Your task to perform on an android device: set the timer Image 0: 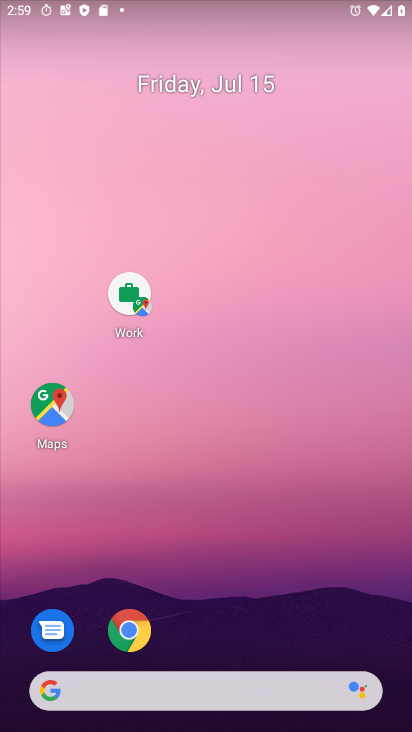
Step 0: drag from (223, 628) to (240, 40)
Your task to perform on an android device: set the timer Image 1: 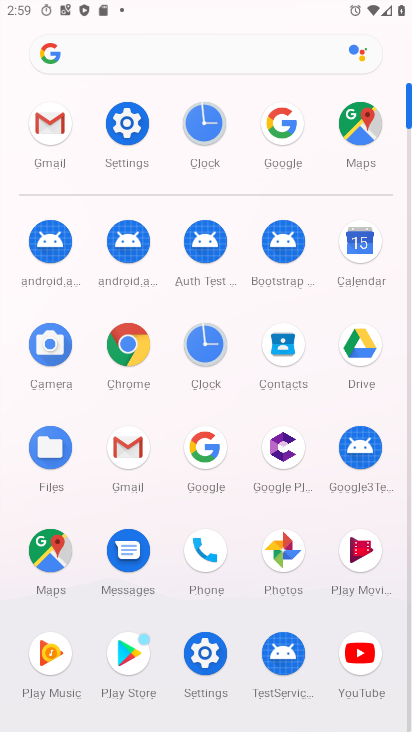
Step 1: click (197, 138)
Your task to perform on an android device: set the timer Image 2: 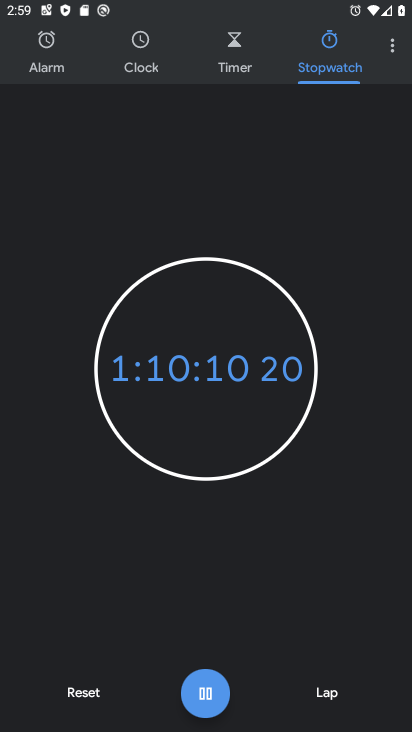
Step 2: click (227, 73)
Your task to perform on an android device: set the timer Image 3: 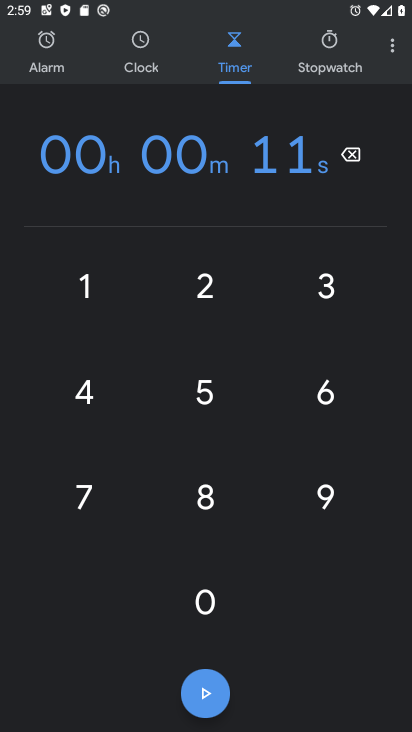
Step 3: click (214, 686)
Your task to perform on an android device: set the timer Image 4: 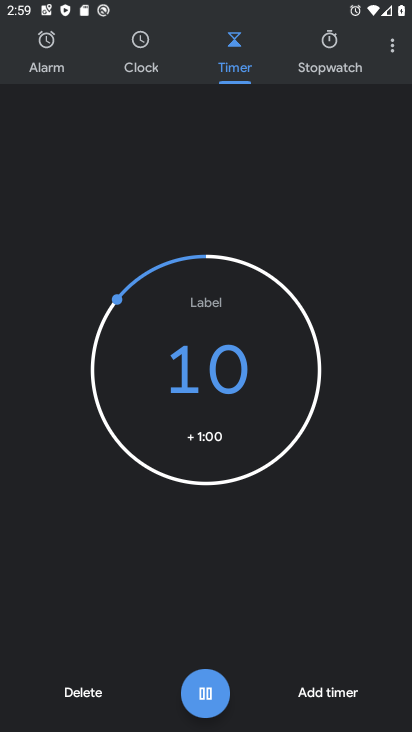
Step 4: task complete